Your task to perform on an android device: open the mobile data screen to see how much data has been used Image 0: 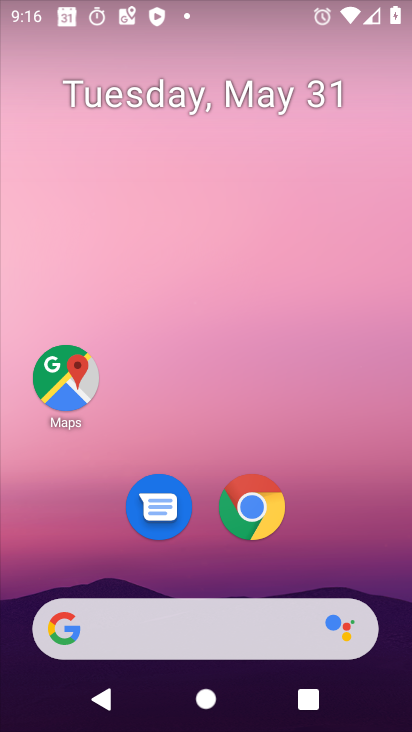
Step 0: drag from (362, 576) to (363, 12)
Your task to perform on an android device: open the mobile data screen to see how much data has been used Image 1: 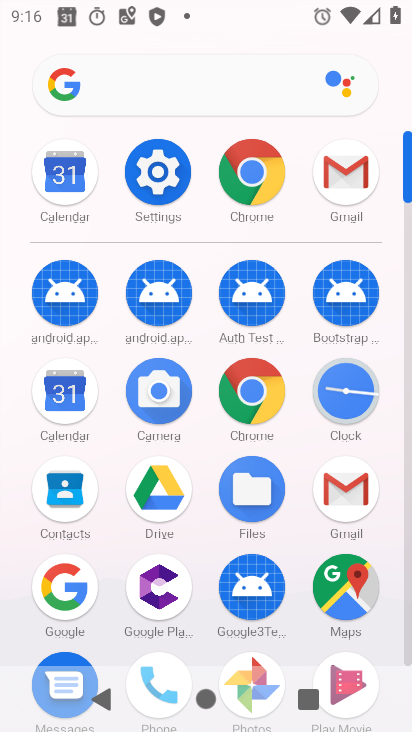
Step 1: click (161, 176)
Your task to perform on an android device: open the mobile data screen to see how much data has been used Image 2: 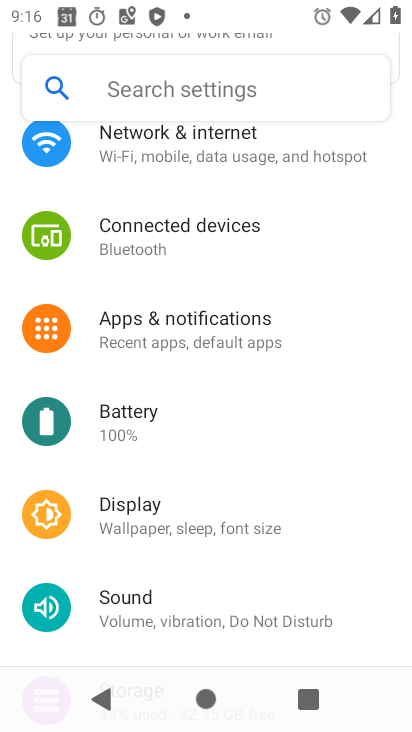
Step 2: click (167, 158)
Your task to perform on an android device: open the mobile data screen to see how much data has been used Image 3: 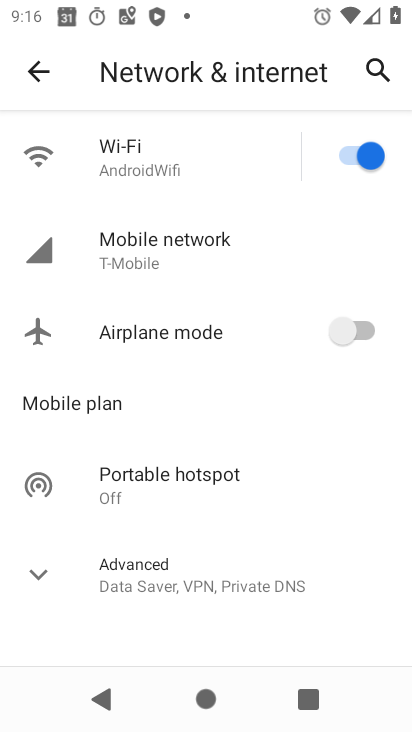
Step 3: click (141, 240)
Your task to perform on an android device: open the mobile data screen to see how much data has been used Image 4: 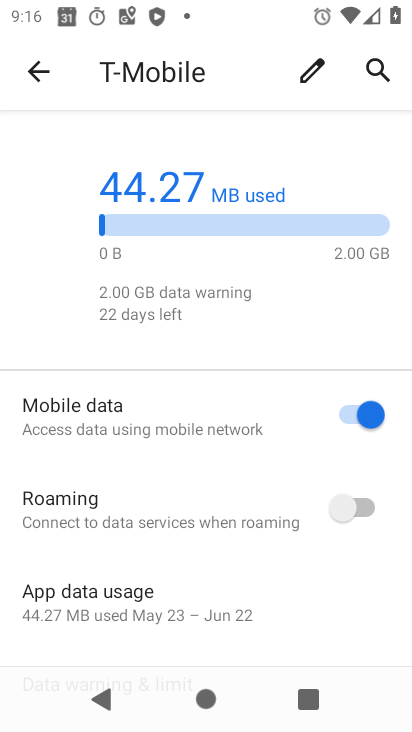
Step 4: drag from (132, 491) to (131, 218)
Your task to perform on an android device: open the mobile data screen to see how much data has been used Image 5: 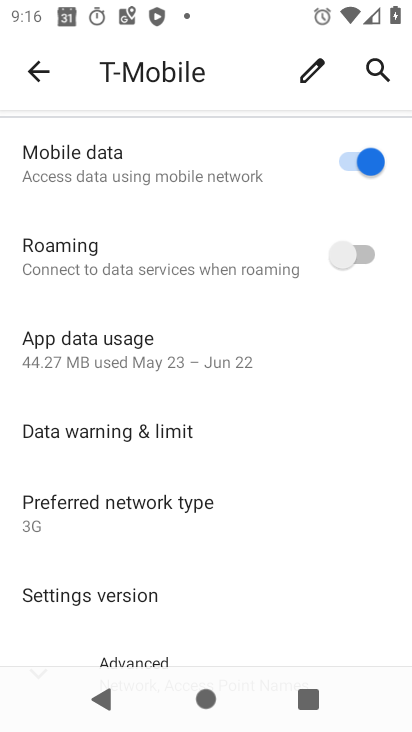
Step 5: click (84, 349)
Your task to perform on an android device: open the mobile data screen to see how much data has been used Image 6: 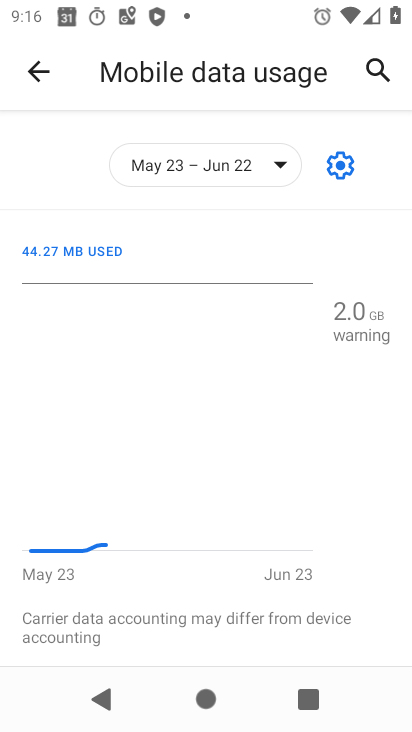
Step 6: task complete